Your task to perform on an android device: Go to sound settings Image 0: 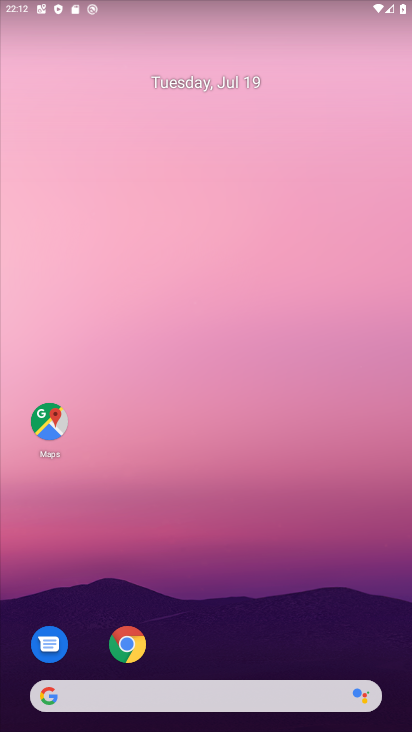
Step 0: drag from (236, 642) to (295, 62)
Your task to perform on an android device: Go to sound settings Image 1: 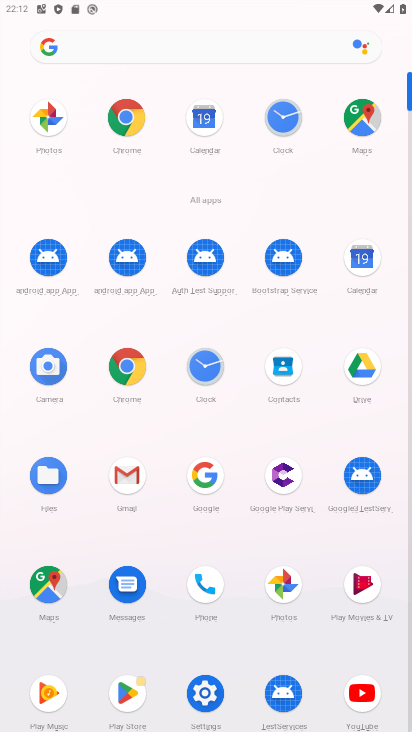
Step 1: click (213, 686)
Your task to perform on an android device: Go to sound settings Image 2: 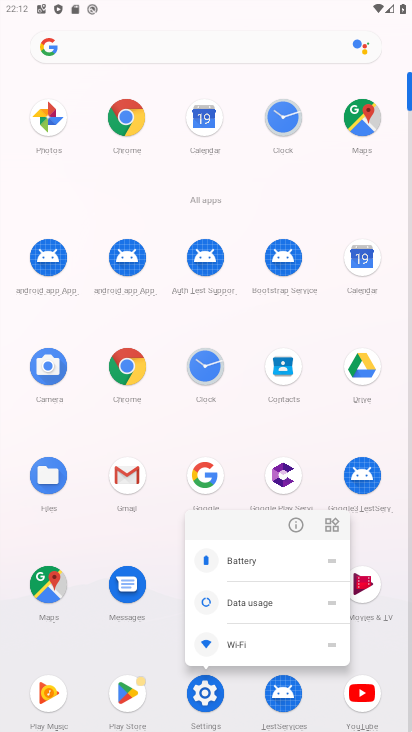
Step 2: click (212, 692)
Your task to perform on an android device: Go to sound settings Image 3: 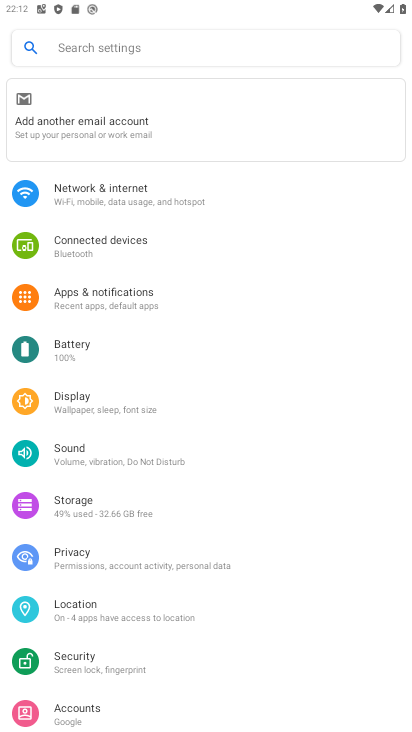
Step 3: click (81, 453)
Your task to perform on an android device: Go to sound settings Image 4: 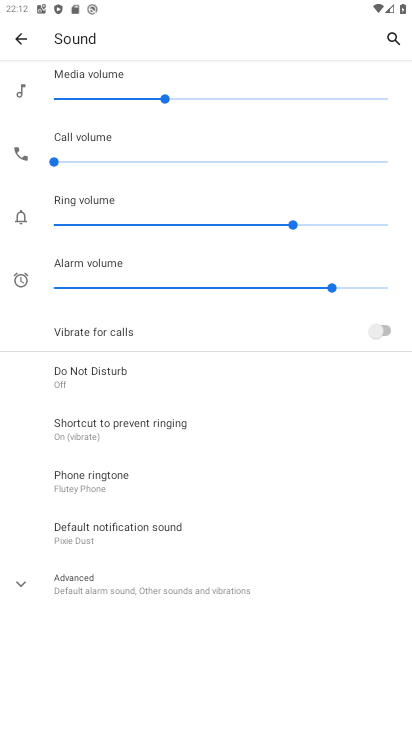
Step 4: task complete